Your task to perform on an android device: turn on priority inbox in the gmail app Image 0: 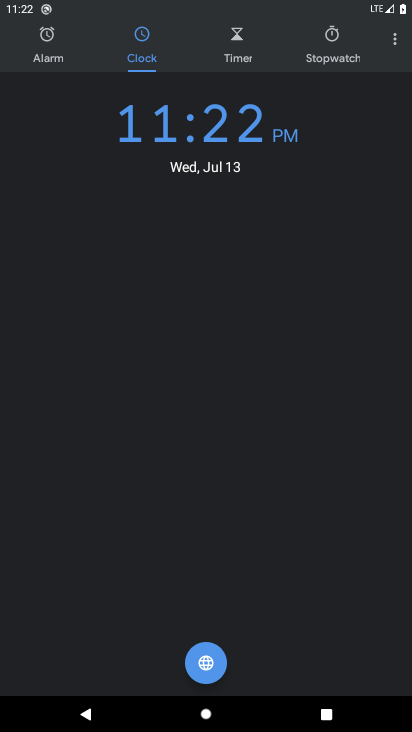
Step 0: press home button
Your task to perform on an android device: turn on priority inbox in the gmail app Image 1: 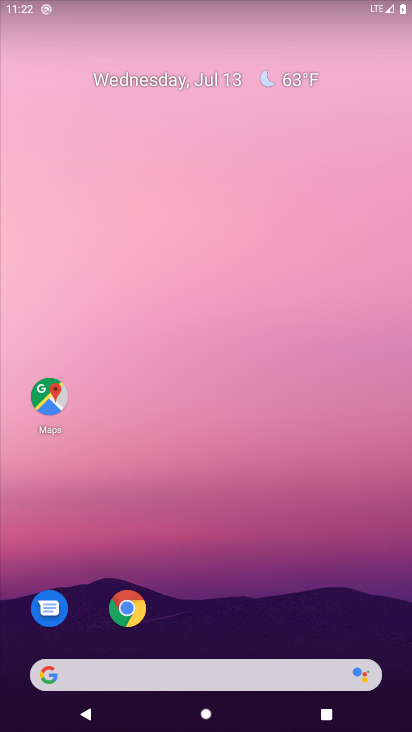
Step 1: drag from (273, 613) to (357, 173)
Your task to perform on an android device: turn on priority inbox in the gmail app Image 2: 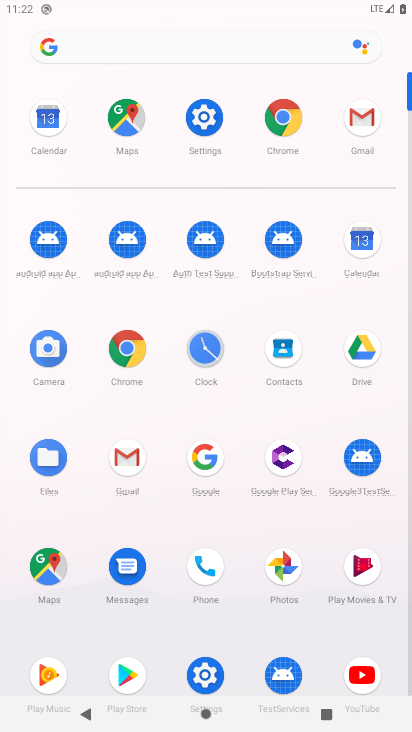
Step 2: click (198, 113)
Your task to perform on an android device: turn on priority inbox in the gmail app Image 3: 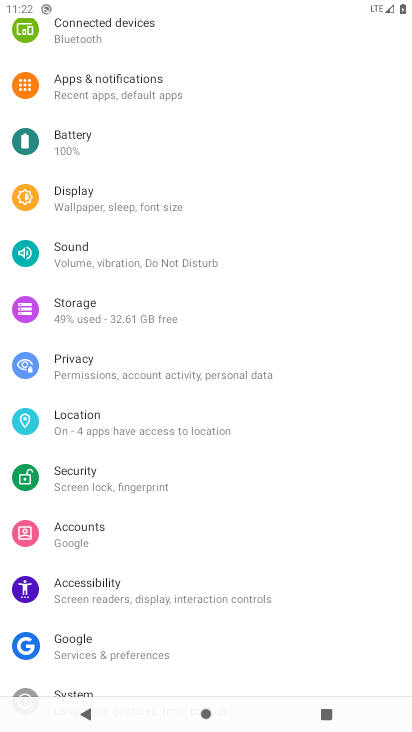
Step 3: press home button
Your task to perform on an android device: turn on priority inbox in the gmail app Image 4: 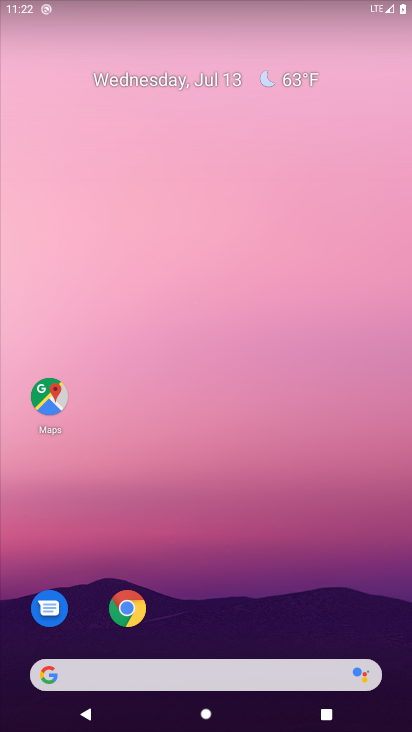
Step 4: drag from (266, 363) to (290, 73)
Your task to perform on an android device: turn on priority inbox in the gmail app Image 5: 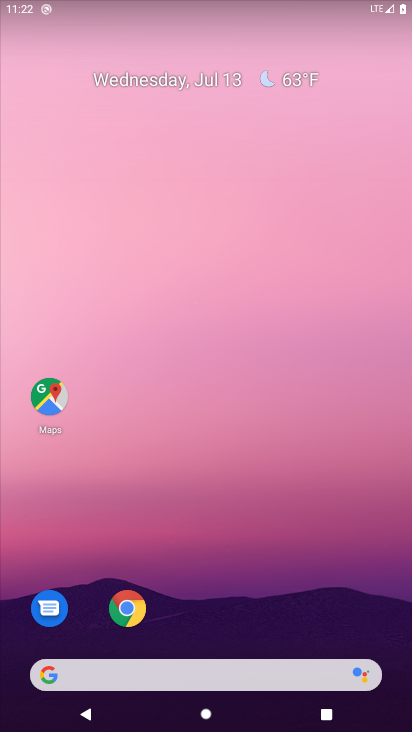
Step 5: drag from (234, 610) to (300, 126)
Your task to perform on an android device: turn on priority inbox in the gmail app Image 6: 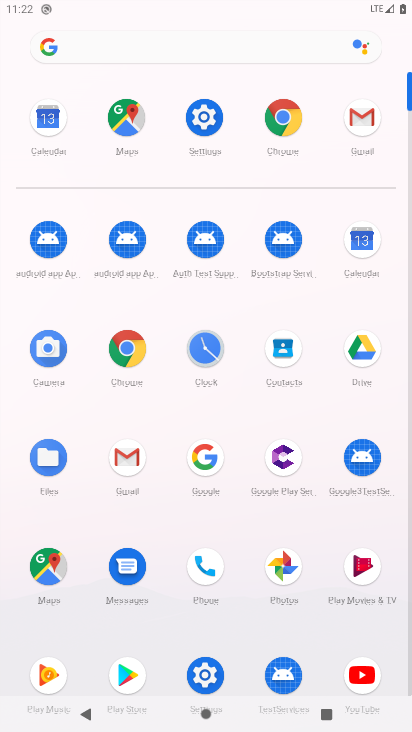
Step 6: click (131, 451)
Your task to perform on an android device: turn on priority inbox in the gmail app Image 7: 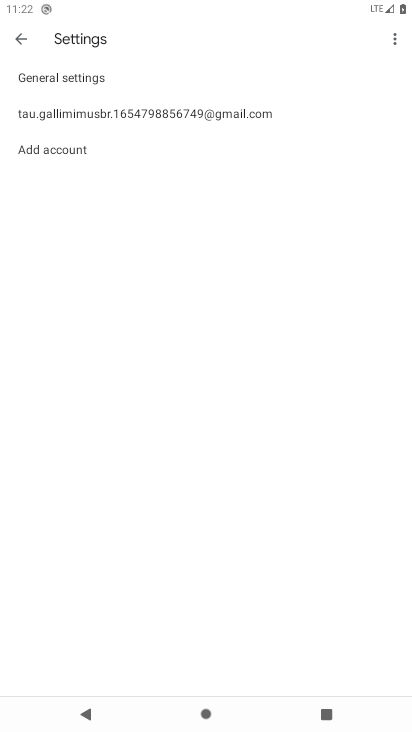
Step 7: click (181, 114)
Your task to perform on an android device: turn on priority inbox in the gmail app Image 8: 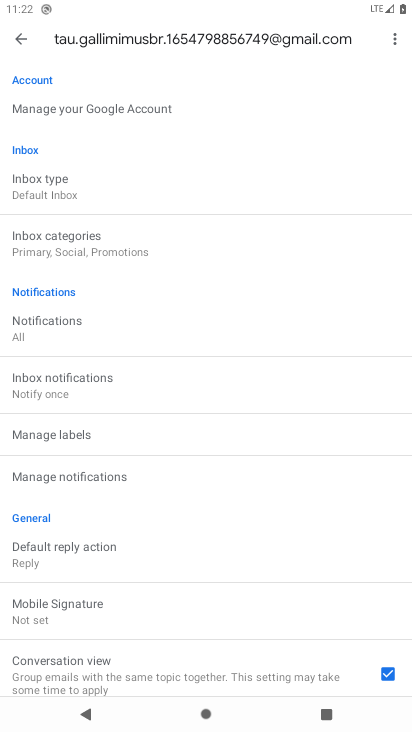
Step 8: click (52, 180)
Your task to perform on an android device: turn on priority inbox in the gmail app Image 9: 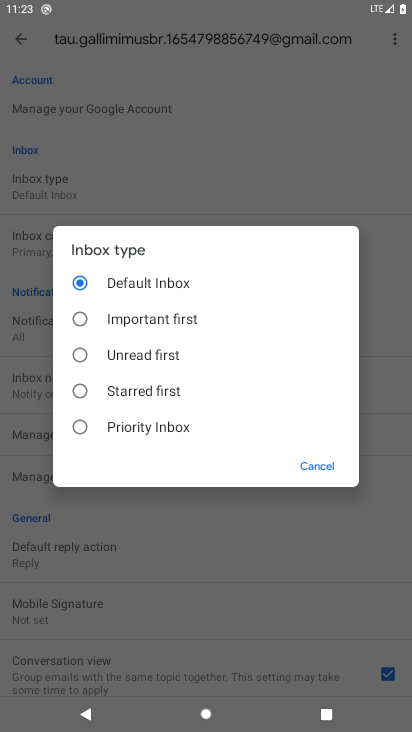
Step 9: click (158, 420)
Your task to perform on an android device: turn on priority inbox in the gmail app Image 10: 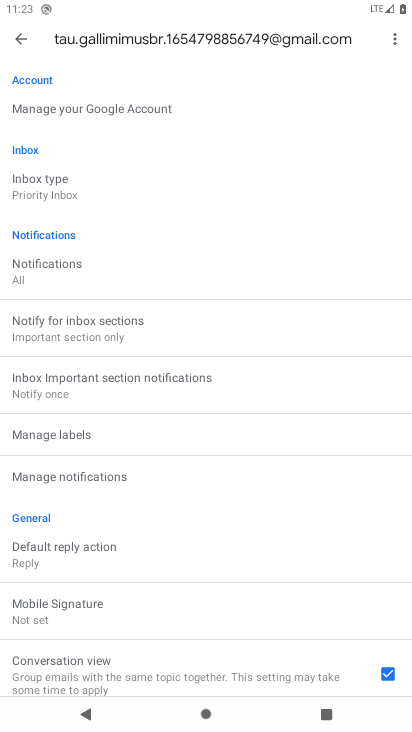
Step 10: task complete